Your task to perform on an android device: Open Amazon Image 0: 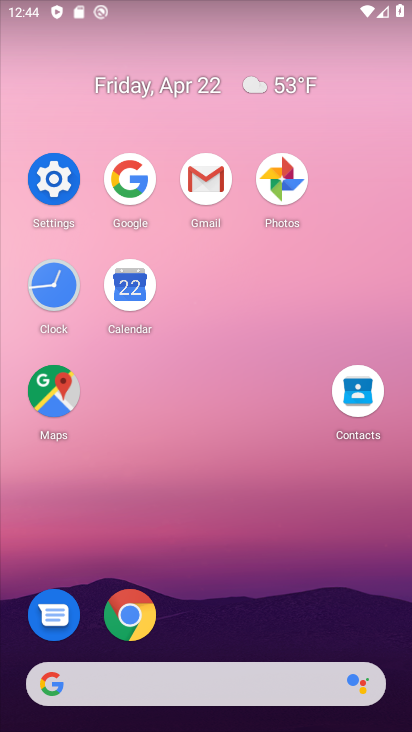
Step 0: click (136, 624)
Your task to perform on an android device: Open Amazon Image 1: 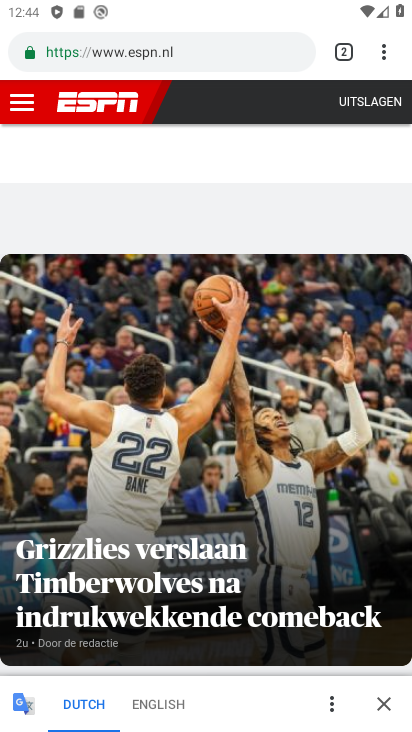
Step 1: click (348, 55)
Your task to perform on an android device: Open Amazon Image 2: 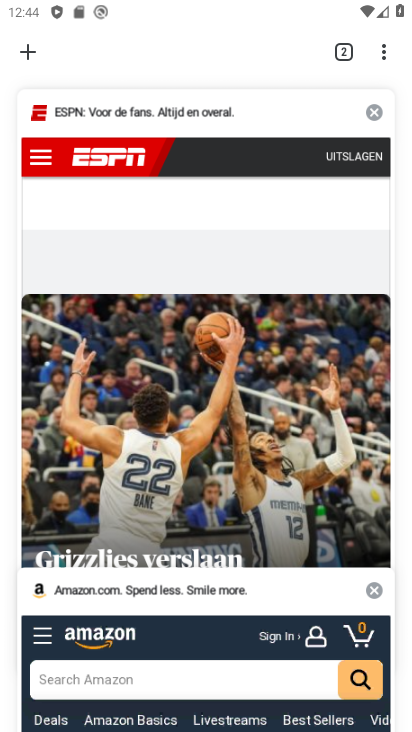
Step 2: click (236, 640)
Your task to perform on an android device: Open Amazon Image 3: 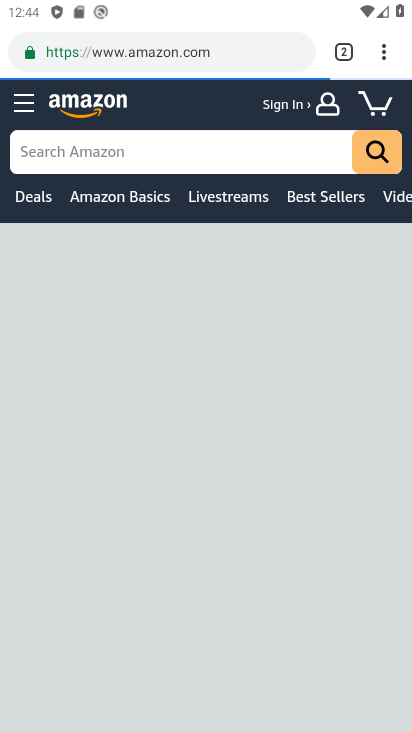
Step 3: task complete